Your task to perform on an android device: find snoozed emails in the gmail app Image 0: 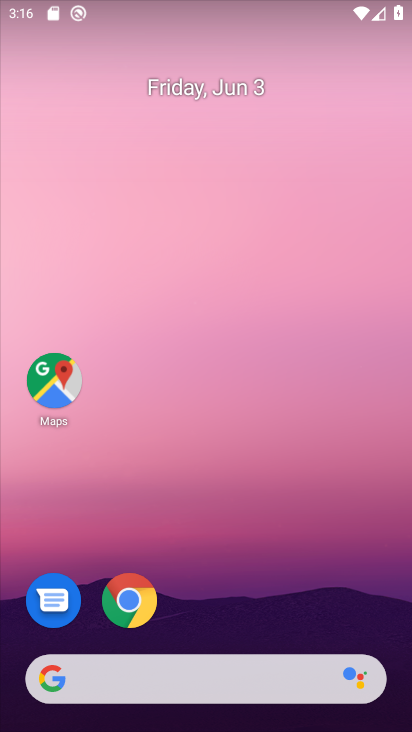
Step 0: drag from (307, 556) to (170, 114)
Your task to perform on an android device: find snoozed emails in the gmail app Image 1: 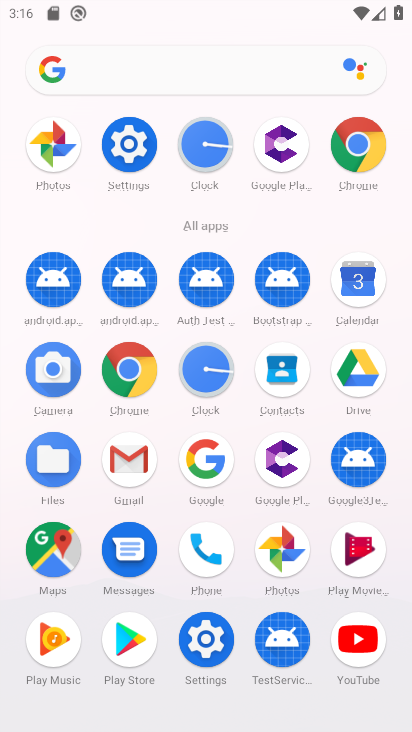
Step 1: click (121, 454)
Your task to perform on an android device: find snoozed emails in the gmail app Image 2: 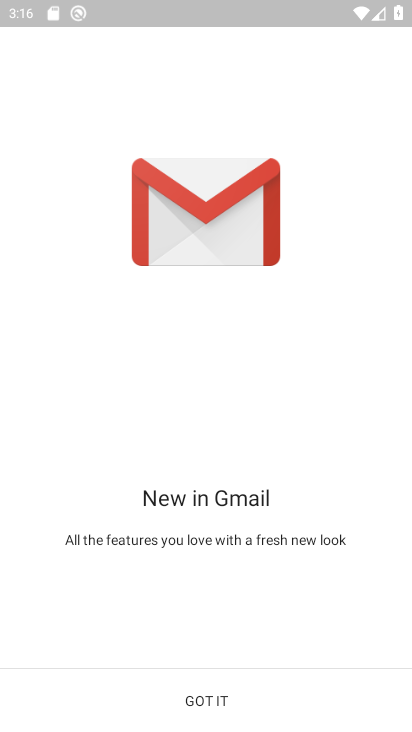
Step 2: click (191, 681)
Your task to perform on an android device: find snoozed emails in the gmail app Image 3: 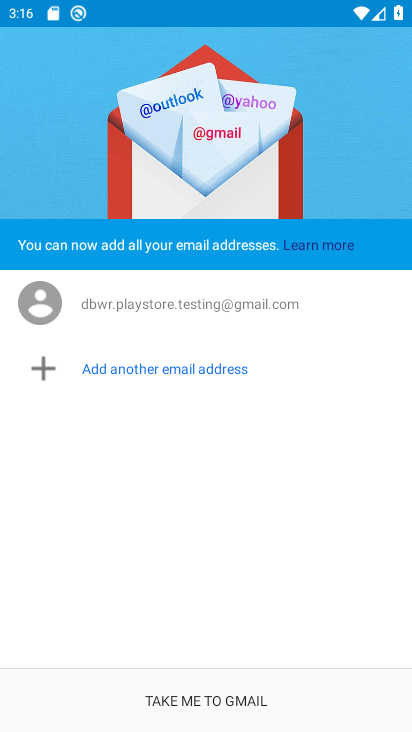
Step 3: click (183, 690)
Your task to perform on an android device: find snoozed emails in the gmail app Image 4: 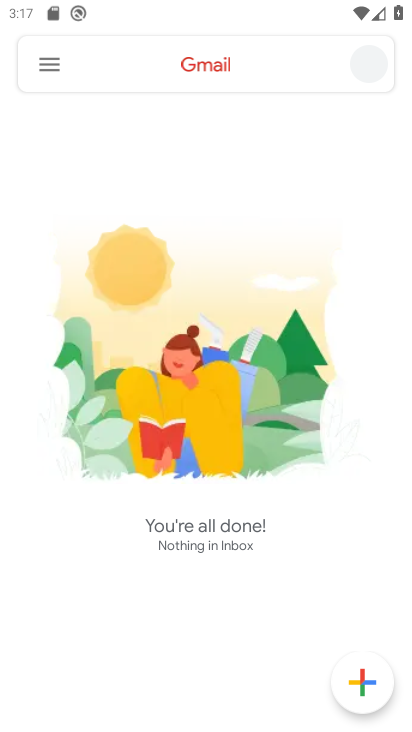
Step 4: click (43, 62)
Your task to perform on an android device: find snoozed emails in the gmail app Image 5: 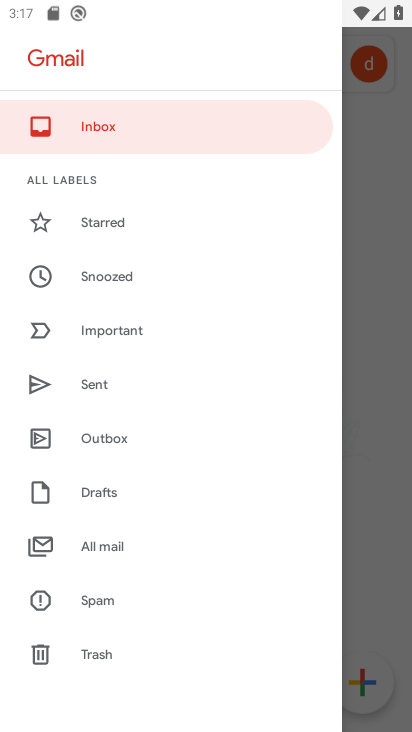
Step 5: click (117, 273)
Your task to perform on an android device: find snoozed emails in the gmail app Image 6: 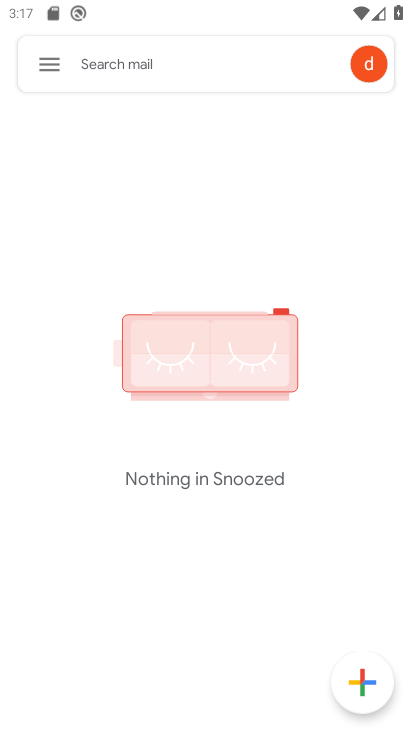
Step 6: task complete